Your task to perform on an android device: open chrome privacy settings Image 0: 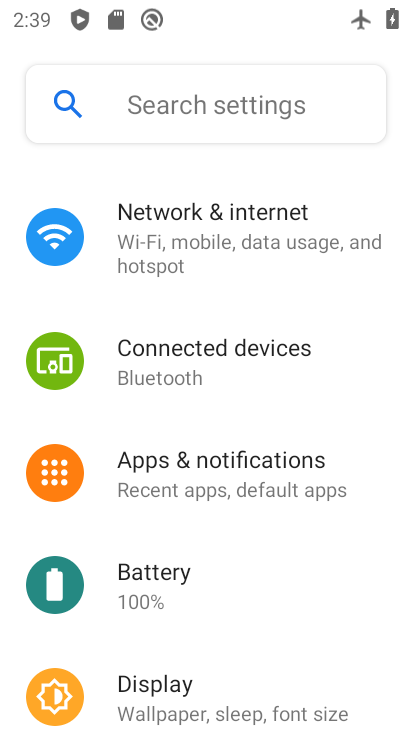
Step 0: drag from (228, 668) to (222, 116)
Your task to perform on an android device: open chrome privacy settings Image 1: 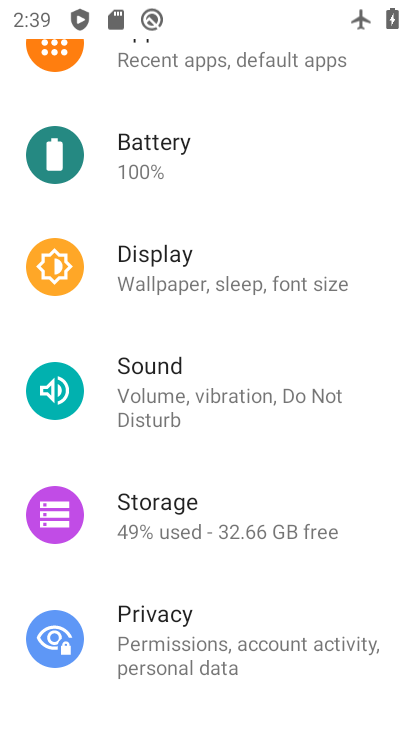
Step 1: click (221, 618)
Your task to perform on an android device: open chrome privacy settings Image 2: 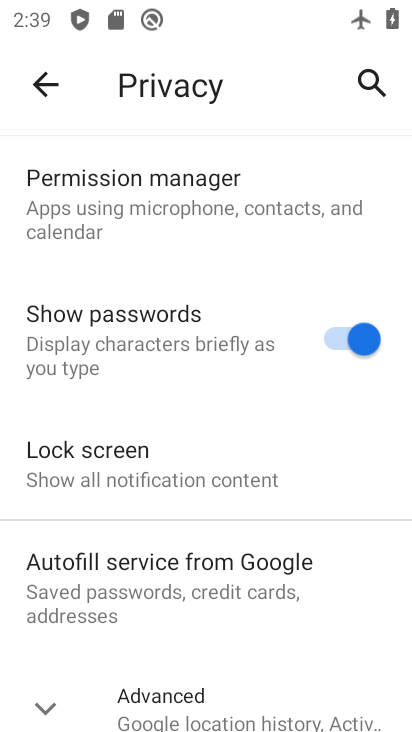
Step 2: click (62, 701)
Your task to perform on an android device: open chrome privacy settings Image 3: 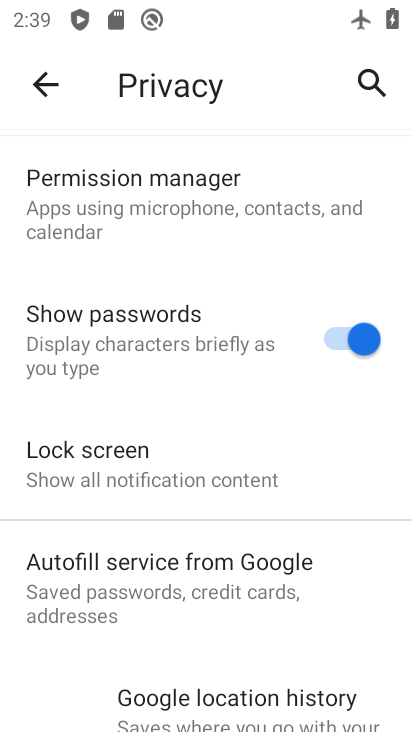
Step 3: task complete